Your task to perform on an android device: create a new album in the google photos Image 0: 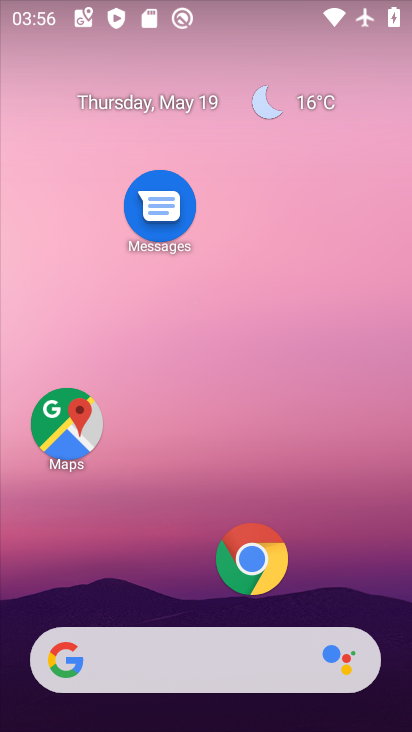
Step 0: press home button
Your task to perform on an android device: create a new album in the google photos Image 1: 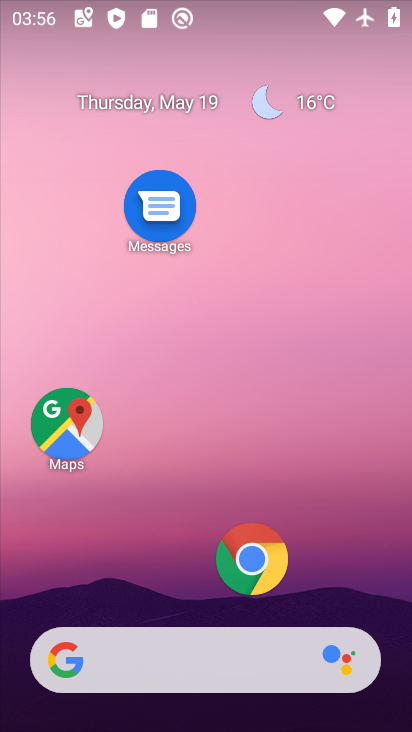
Step 1: press home button
Your task to perform on an android device: create a new album in the google photos Image 2: 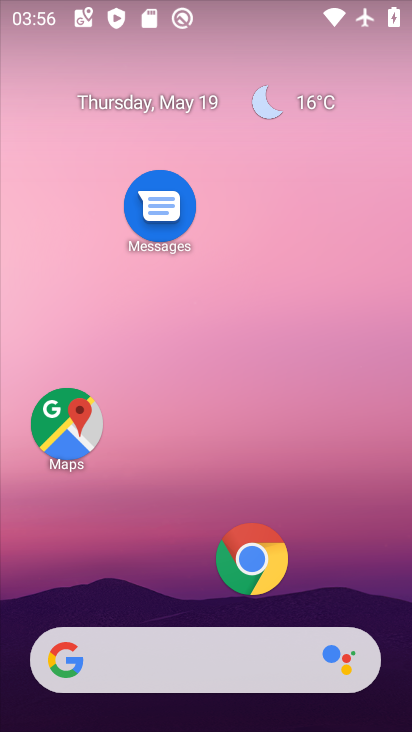
Step 2: drag from (184, 601) to (232, 167)
Your task to perform on an android device: create a new album in the google photos Image 3: 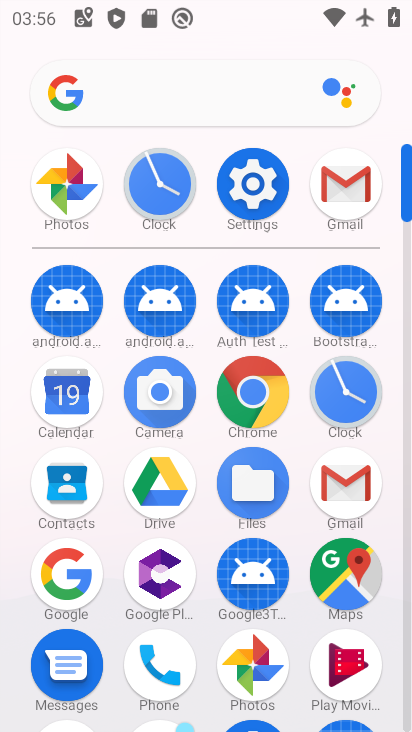
Step 3: click (79, 193)
Your task to perform on an android device: create a new album in the google photos Image 4: 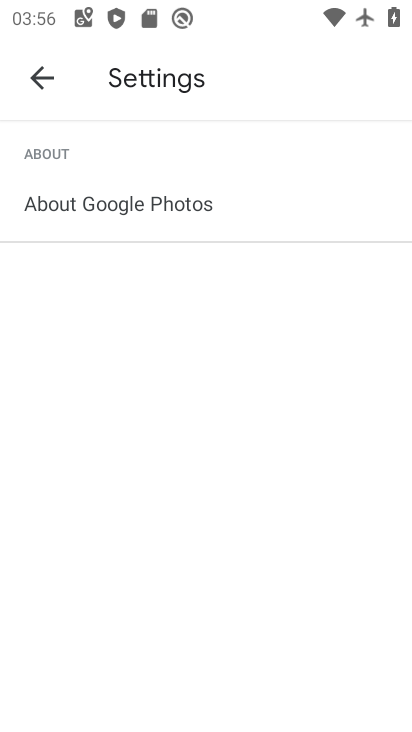
Step 4: click (46, 81)
Your task to perform on an android device: create a new album in the google photos Image 5: 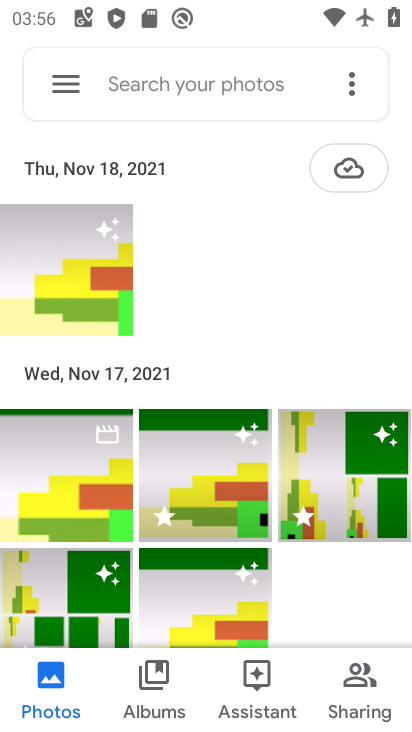
Step 5: click (351, 93)
Your task to perform on an android device: create a new album in the google photos Image 6: 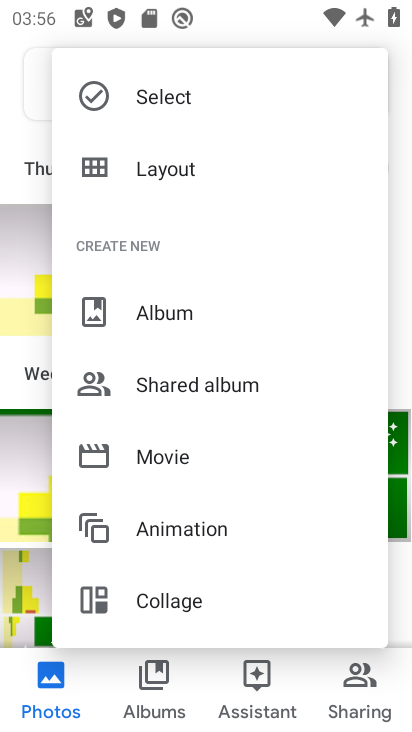
Step 6: click (228, 319)
Your task to perform on an android device: create a new album in the google photos Image 7: 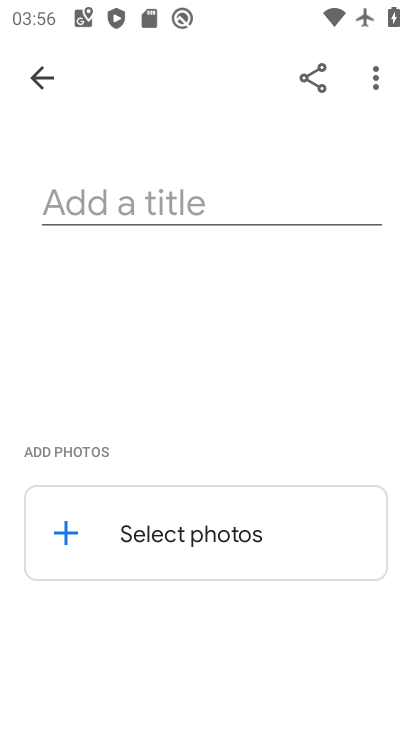
Step 7: click (135, 203)
Your task to perform on an android device: create a new album in the google photos Image 8: 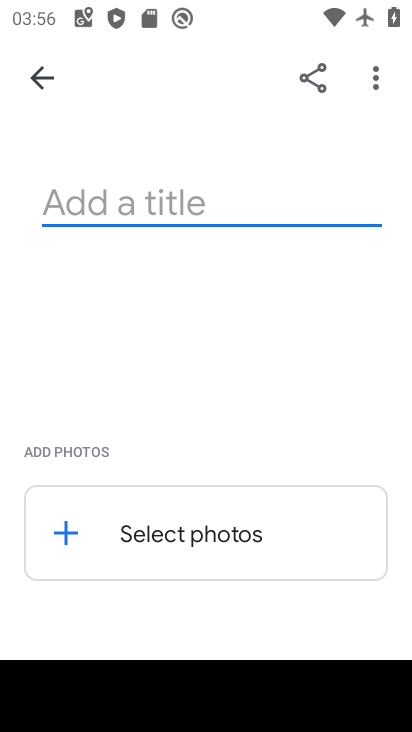
Step 8: type "hgf"
Your task to perform on an android device: create a new album in the google photos Image 9: 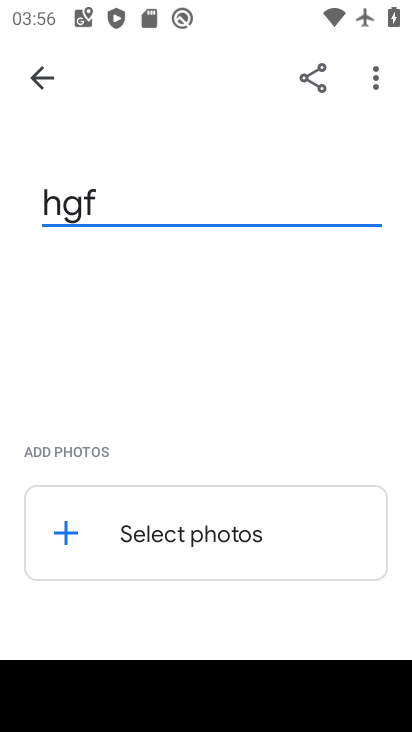
Step 9: click (63, 532)
Your task to perform on an android device: create a new album in the google photos Image 10: 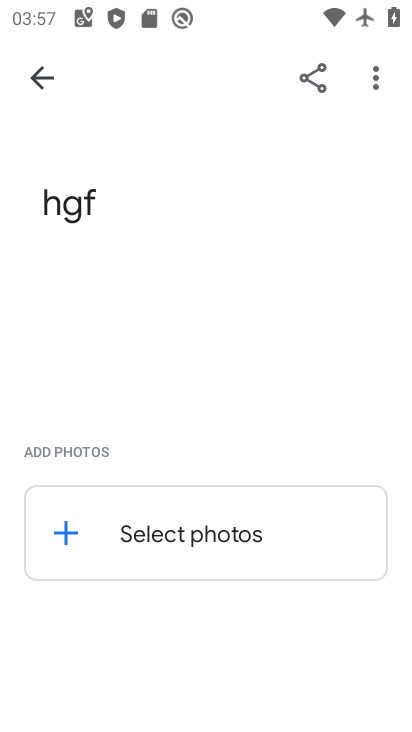
Step 10: click (63, 532)
Your task to perform on an android device: create a new album in the google photos Image 11: 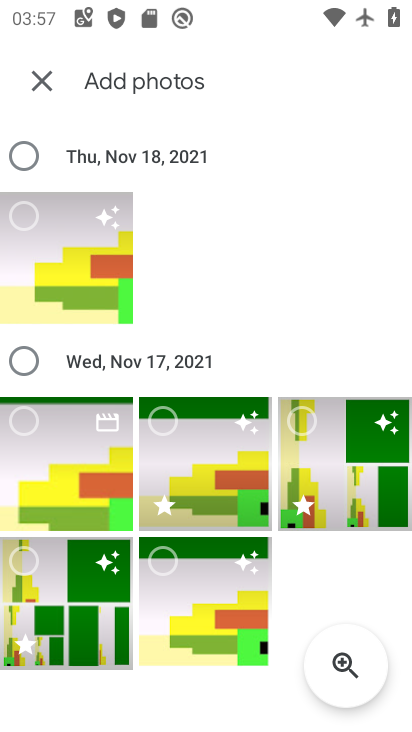
Step 11: click (30, 440)
Your task to perform on an android device: create a new album in the google photos Image 12: 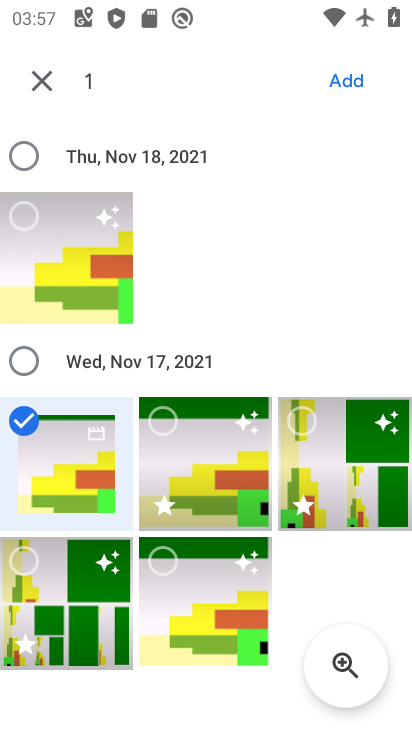
Step 12: click (40, 220)
Your task to perform on an android device: create a new album in the google photos Image 13: 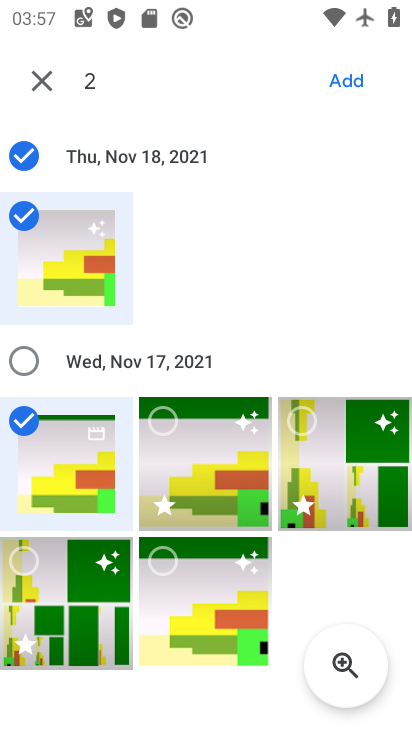
Step 13: click (346, 79)
Your task to perform on an android device: create a new album in the google photos Image 14: 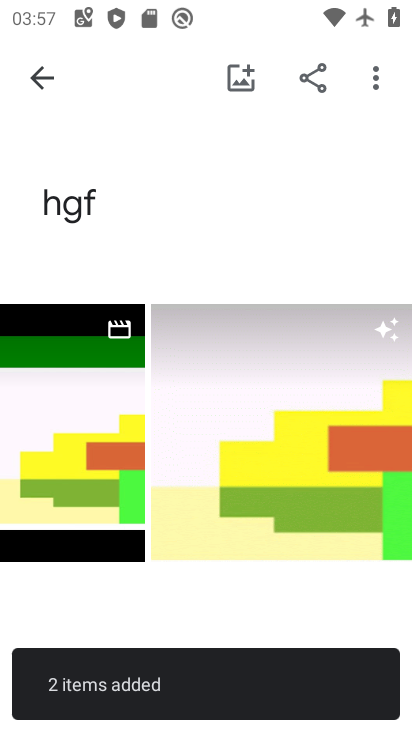
Step 14: task complete